Your task to perform on an android device: turn off data saver in the chrome app Image 0: 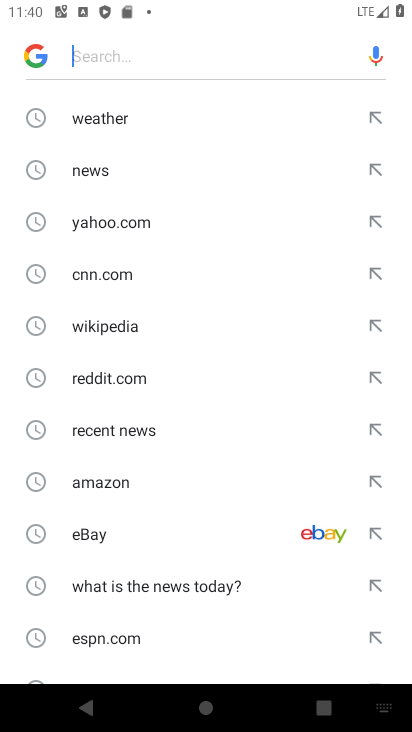
Step 0: press home button
Your task to perform on an android device: turn off data saver in the chrome app Image 1: 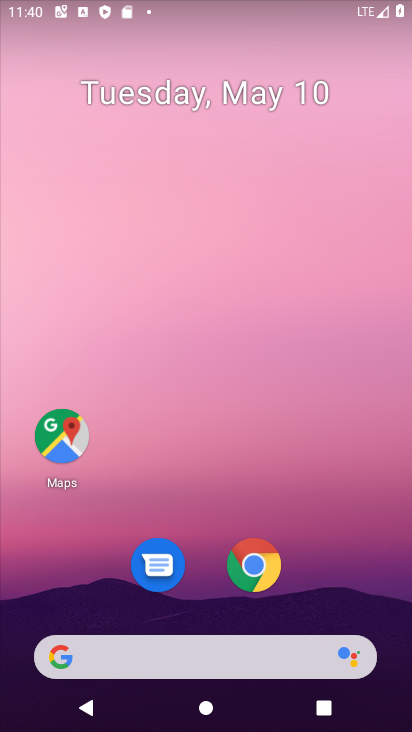
Step 1: click (242, 566)
Your task to perform on an android device: turn off data saver in the chrome app Image 2: 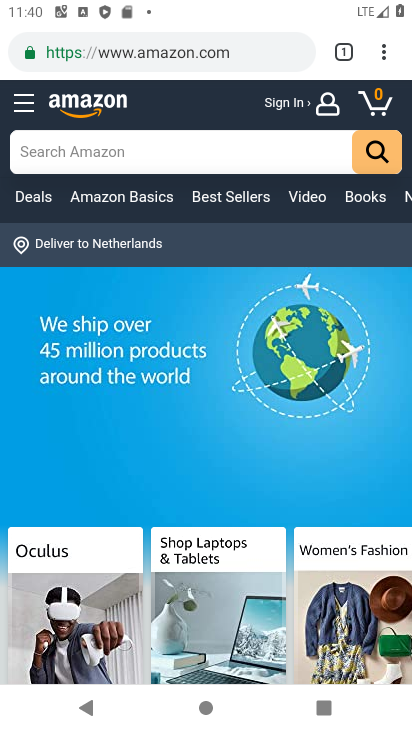
Step 2: click (382, 53)
Your task to perform on an android device: turn off data saver in the chrome app Image 3: 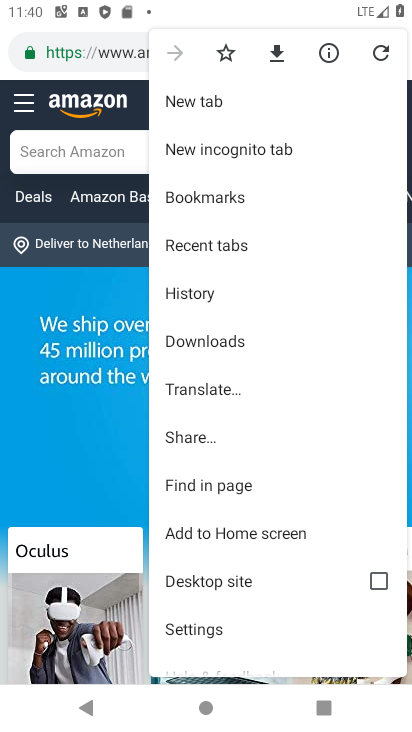
Step 3: click (200, 628)
Your task to perform on an android device: turn off data saver in the chrome app Image 4: 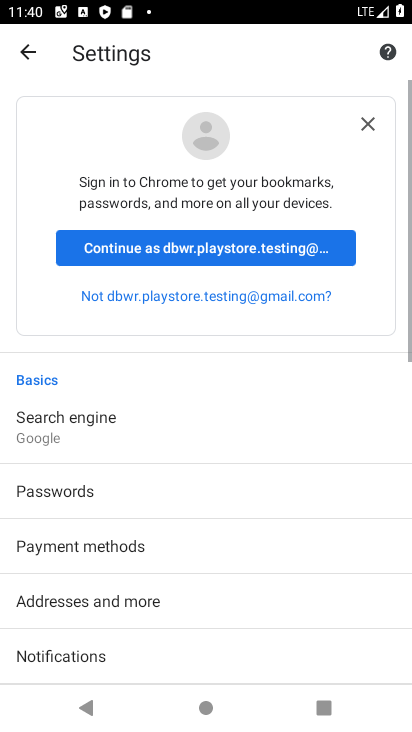
Step 4: drag from (85, 625) to (285, 0)
Your task to perform on an android device: turn off data saver in the chrome app Image 5: 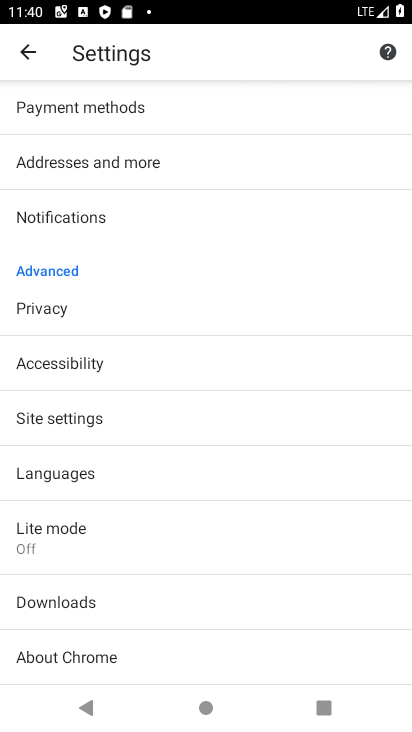
Step 5: click (209, 547)
Your task to perform on an android device: turn off data saver in the chrome app Image 6: 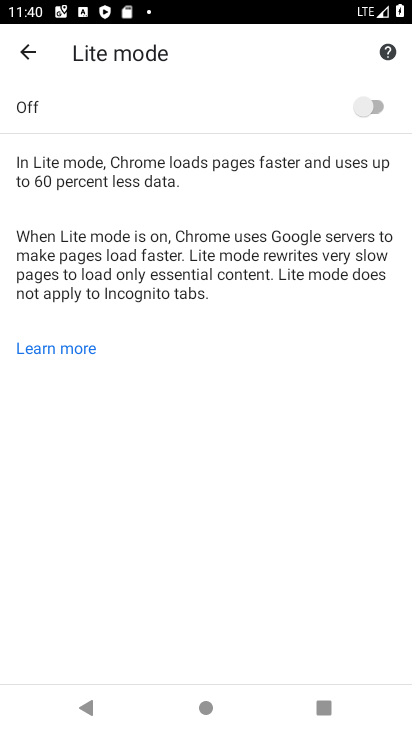
Step 6: task complete